Your task to perform on an android device: Show me productivity apps on the Play Store Image 0: 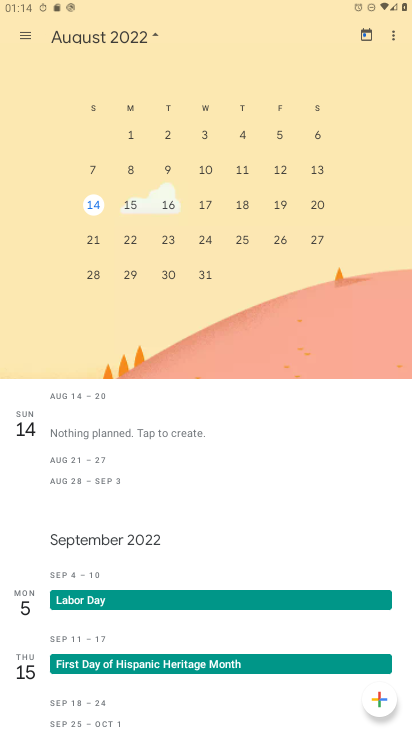
Step 0: press home button
Your task to perform on an android device: Show me productivity apps on the Play Store Image 1: 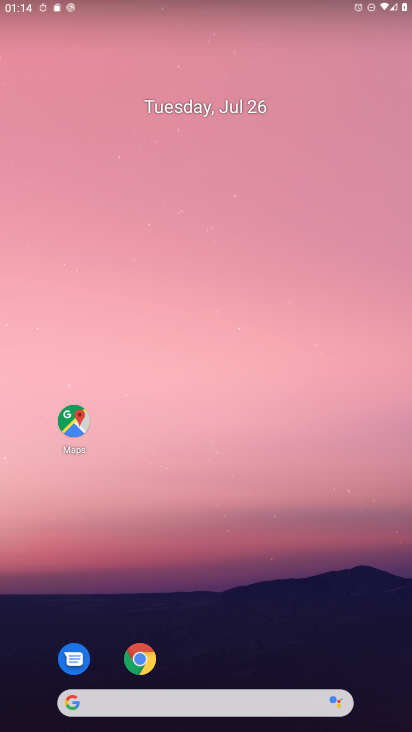
Step 1: drag from (263, 662) to (285, 18)
Your task to perform on an android device: Show me productivity apps on the Play Store Image 2: 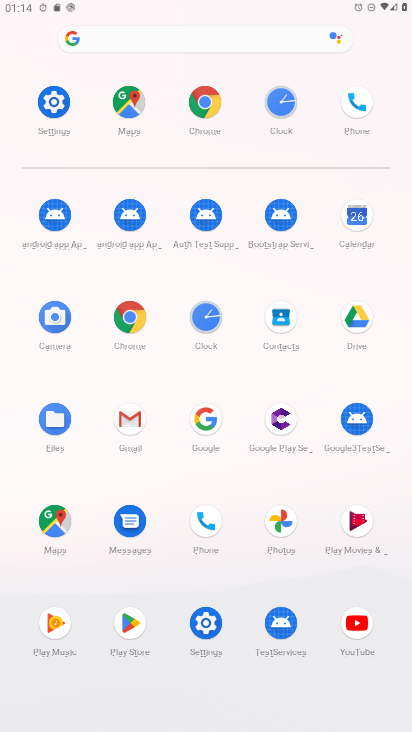
Step 2: click (132, 621)
Your task to perform on an android device: Show me productivity apps on the Play Store Image 3: 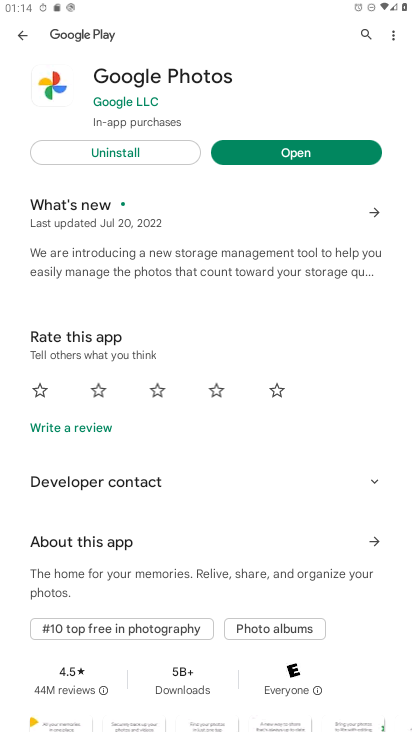
Step 3: click (20, 33)
Your task to perform on an android device: Show me productivity apps on the Play Store Image 4: 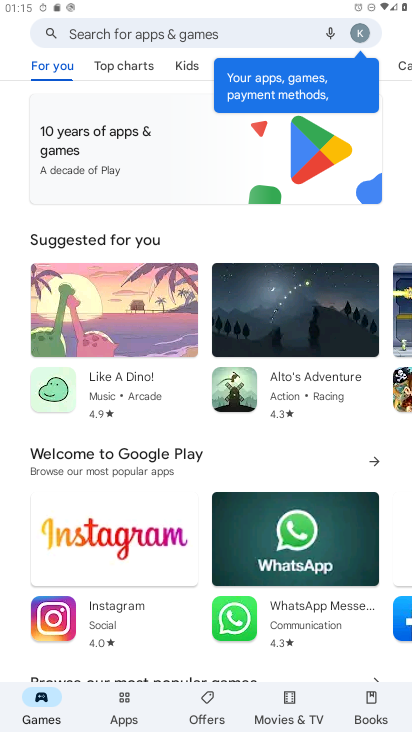
Step 4: click (79, 30)
Your task to perform on an android device: Show me productivity apps on the Play Store Image 5: 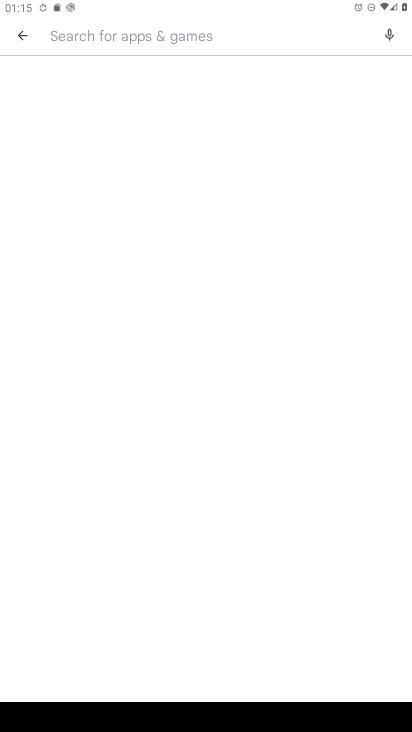
Step 5: type " productivity apps"
Your task to perform on an android device: Show me productivity apps on the Play Store Image 6: 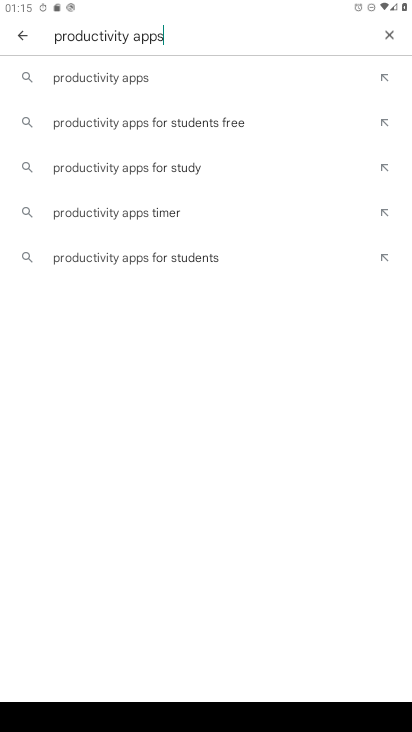
Step 6: click (107, 81)
Your task to perform on an android device: Show me productivity apps on the Play Store Image 7: 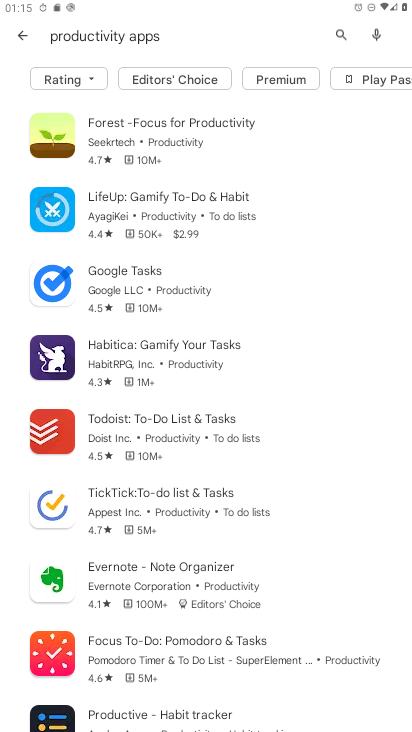
Step 7: task complete